Your task to perform on an android device: Is it going to rain today? Image 0: 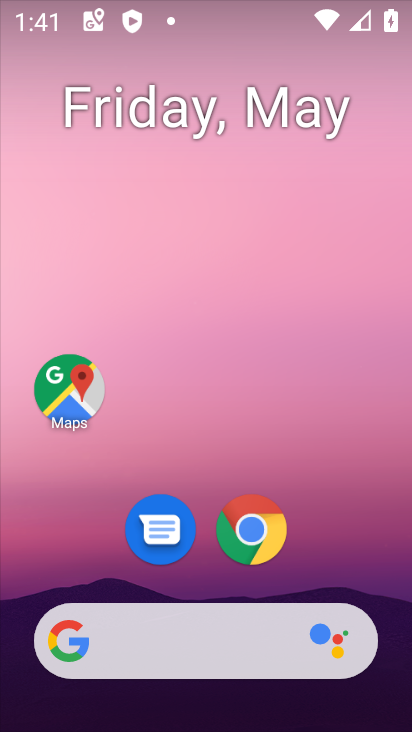
Step 0: drag from (334, 538) to (163, 129)
Your task to perform on an android device: Is it going to rain today? Image 1: 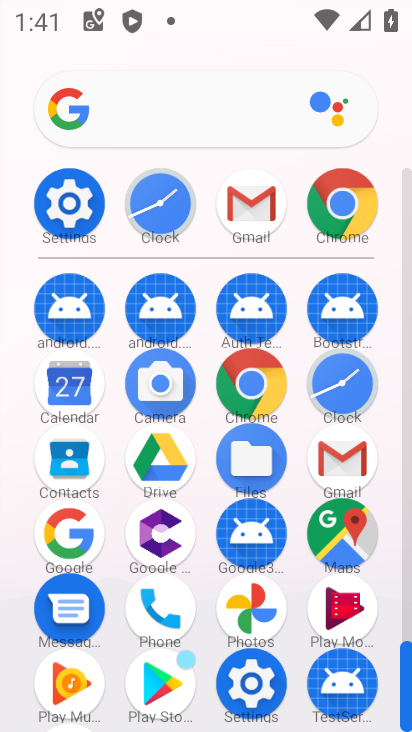
Step 1: click (118, 121)
Your task to perform on an android device: Is it going to rain today? Image 2: 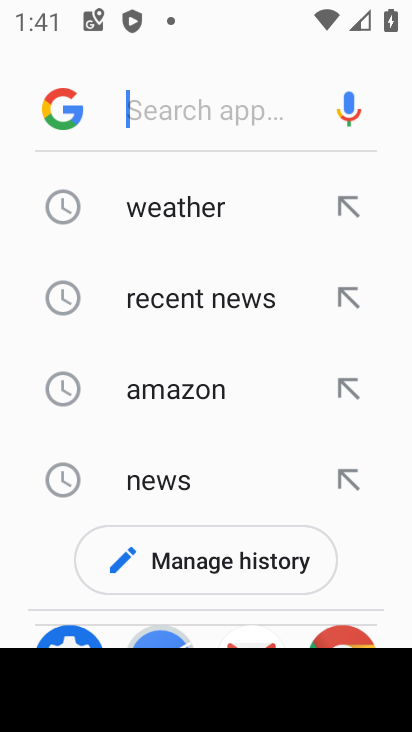
Step 2: click (189, 193)
Your task to perform on an android device: Is it going to rain today? Image 3: 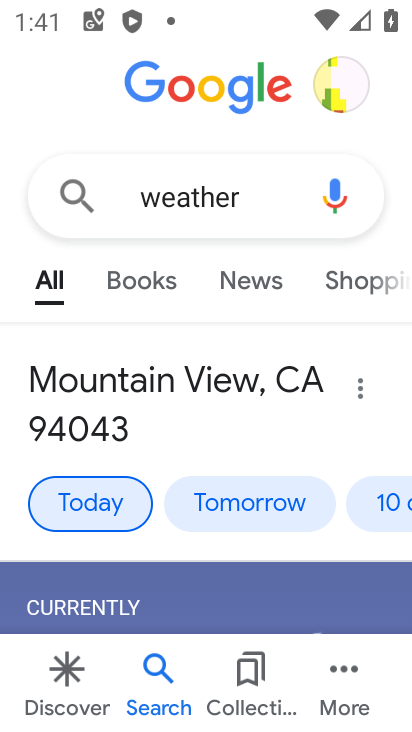
Step 3: task complete